Your task to perform on an android device: Go to settings Image 0: 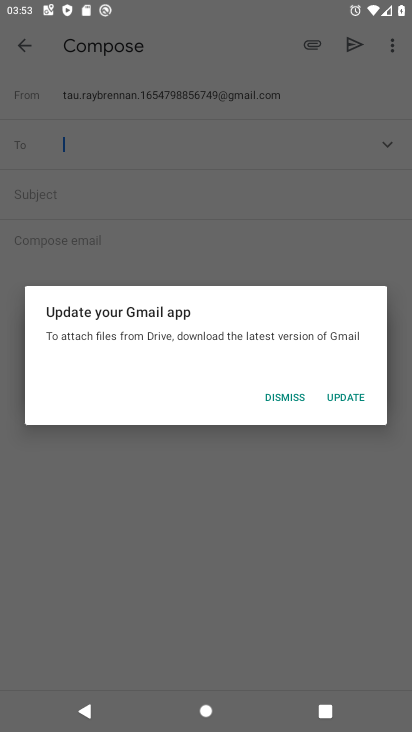
Step 0: press home button
Your task to perform on an android device: Go to settings Image 1: 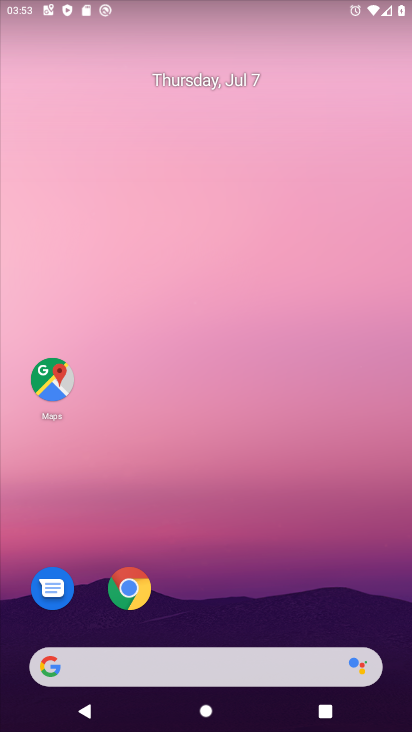
Step 1: drag from (182, 647) to (286, 115)
Your task to perform on an android device: Go to settings Image 2: 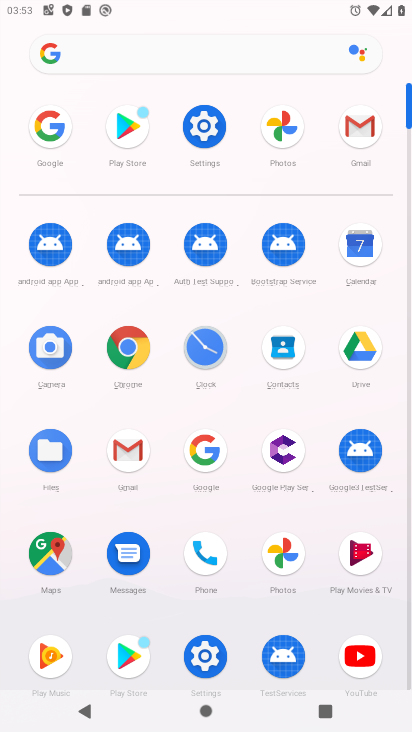
Step 2: click (220, 124)
Your task to perform on an android device: Go to settings Image 3: 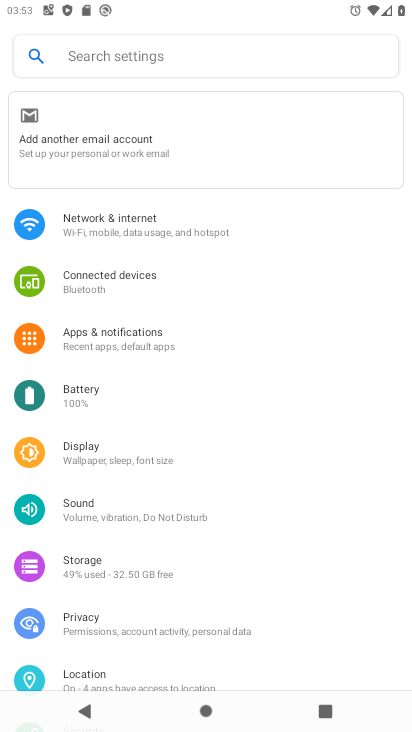
Step 3: task complete